Your task to perform on an android device: Is it going to rain this weekend? Image 0: 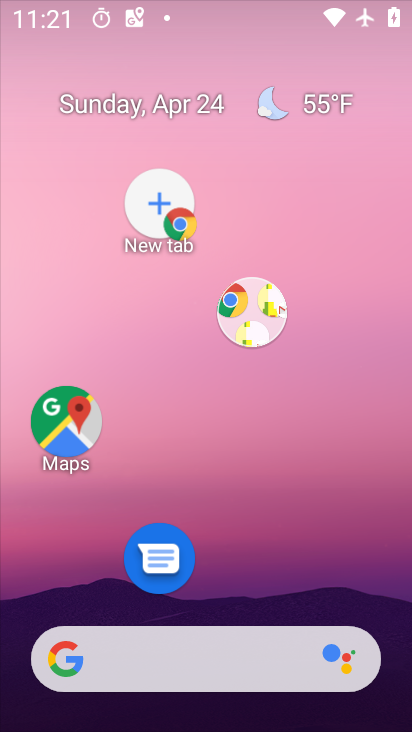
Step 0: drag from (260, 695) to (171, 55)
Your task to perform on an android device: Is it going to rain this weekend? Image 1: 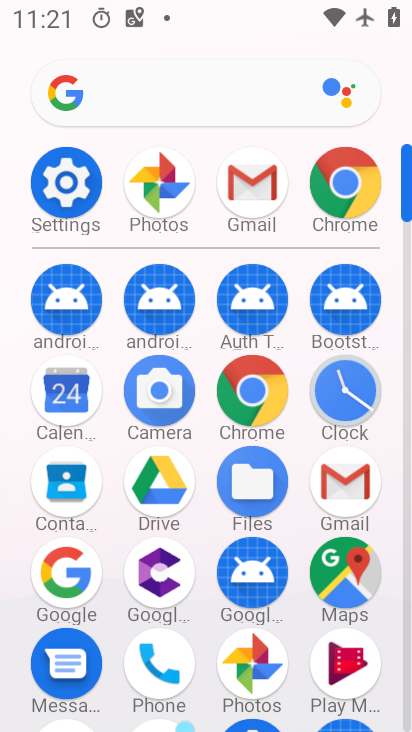
Step 1: click (65, 404)
Your task to perform on an android device: Is it going to rain this weekend? Image 2: 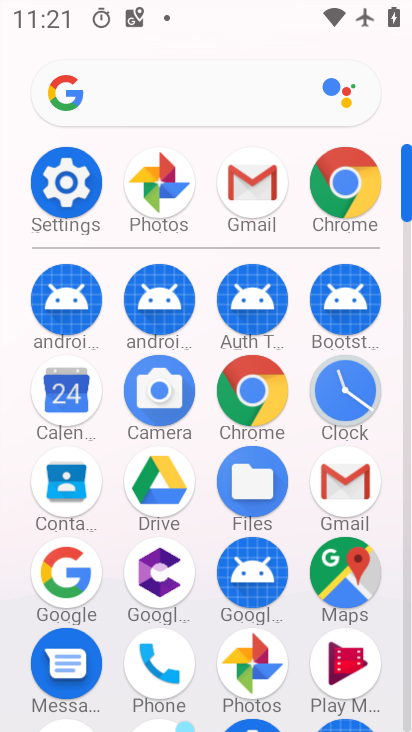
Step 2: click (66, 403)
Your task to perform on an android device: Is it going to rain this weekend? Image 3: 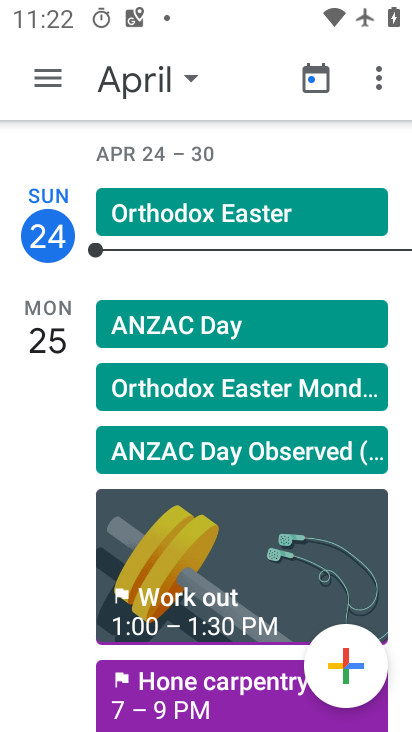
Step 3: task complete